Your task to perform on an android device: turn off location Image 0: 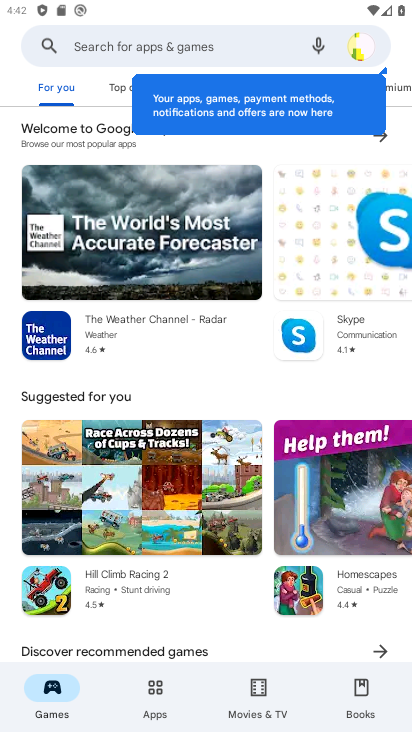
Step 0: press home button
Your task to perform on an android device: turn off location Image 1: 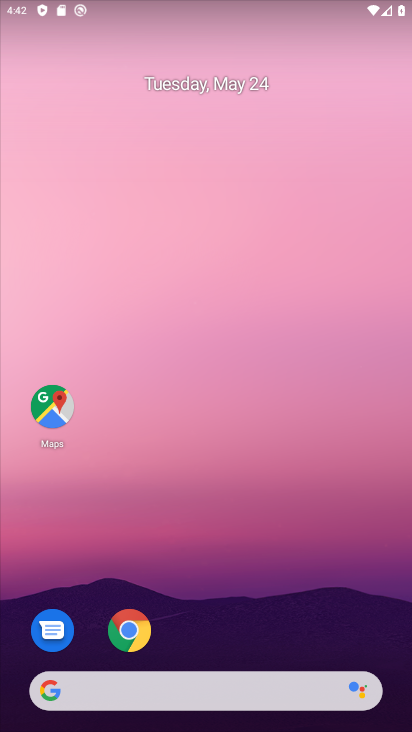
Step 1: drag from (184, 629) to (181, 98)
Your task to perform on an android device: turn off location Image 2: 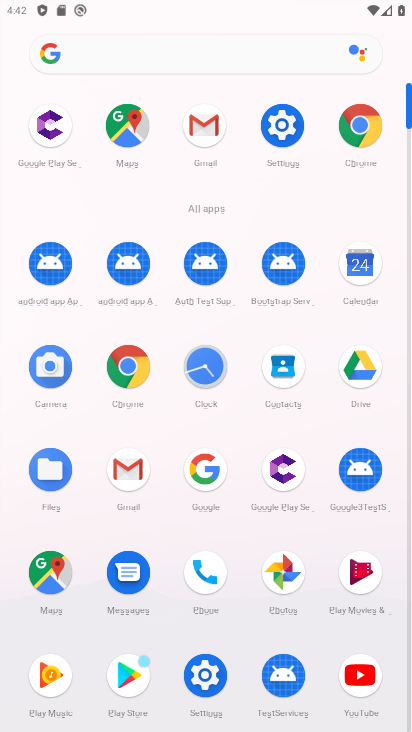
Step 2: click (295, 123)
Your task to perform on an android device: turn off location Image 3: 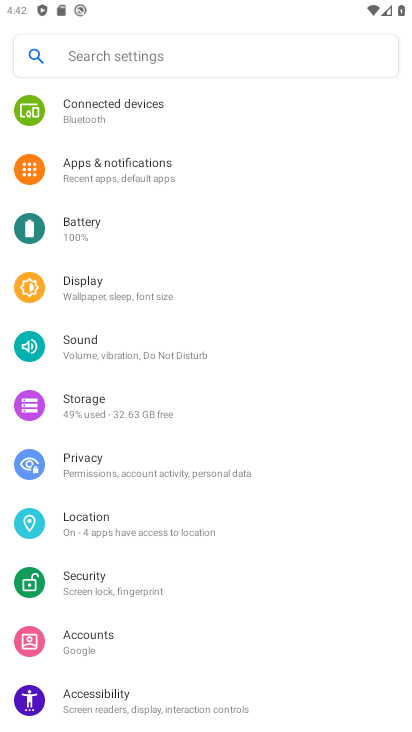
Step 3: click (82, 517)
Your task to perform on an android device: turn off location Image 4: 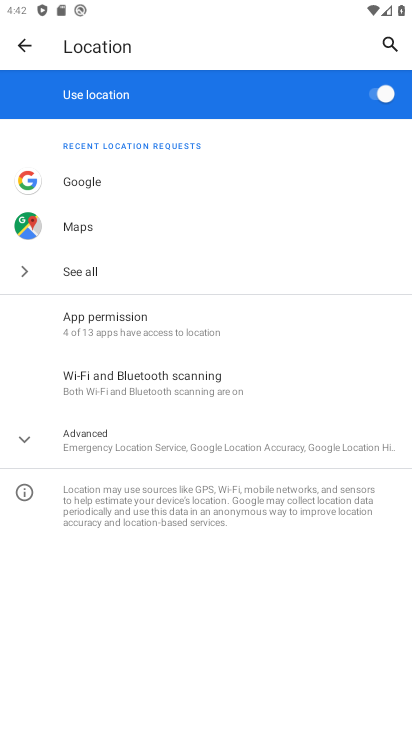
Step 4: click (380, 88)
Your task to perform on an android device: turn off location Image 5: 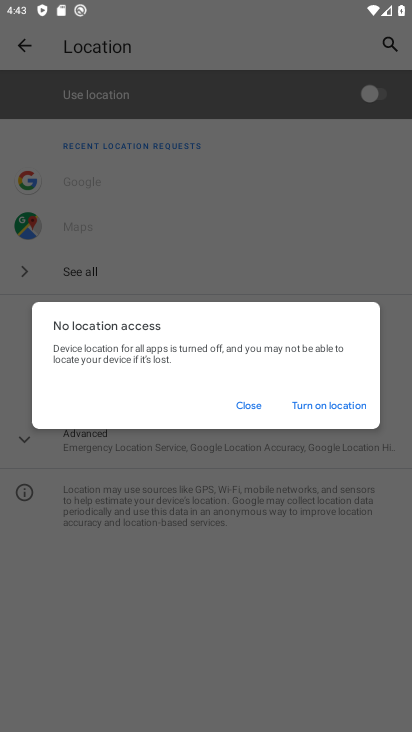
Step 5: task complete